Your task to perform on an android device: turn on data saver in the chrome app Image 0: 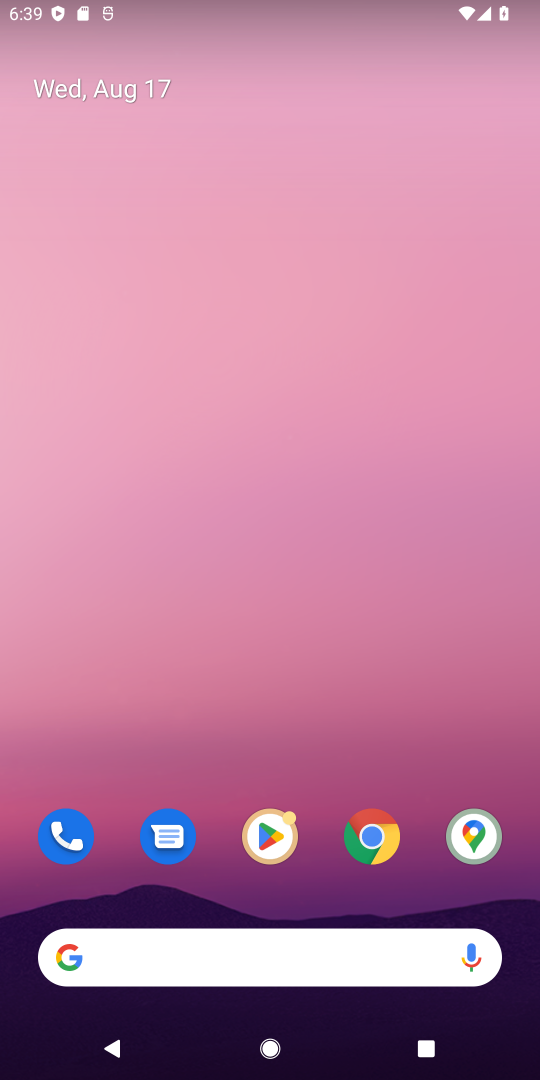
Step 0: click (359, 835)
Your task to perform on an android device: turn on data saver in the chrome app Image 1: 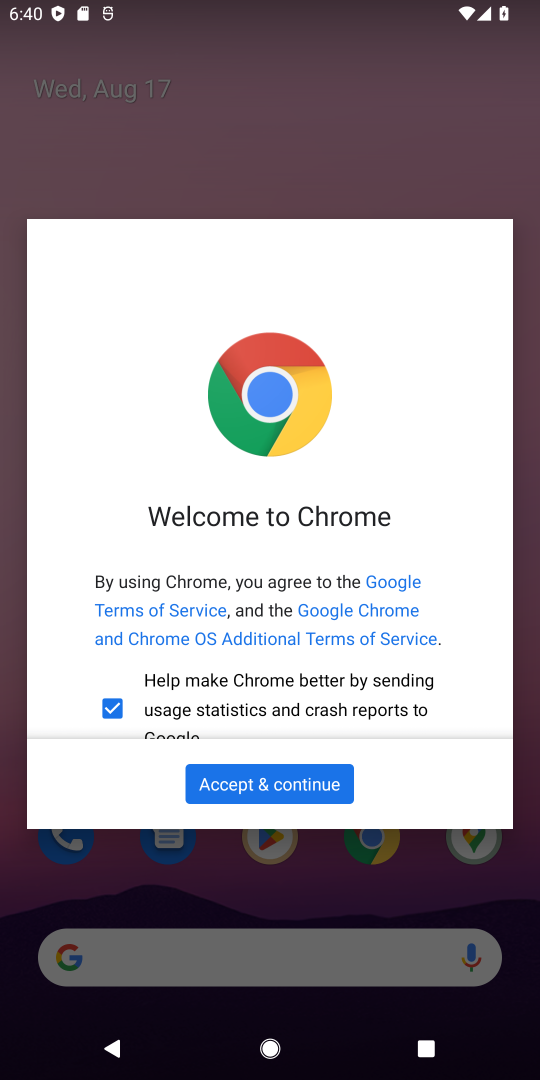
Step 1: click (250, 785)
Your task to perform on an android device: turn on data saver in the chrome app Image 2: 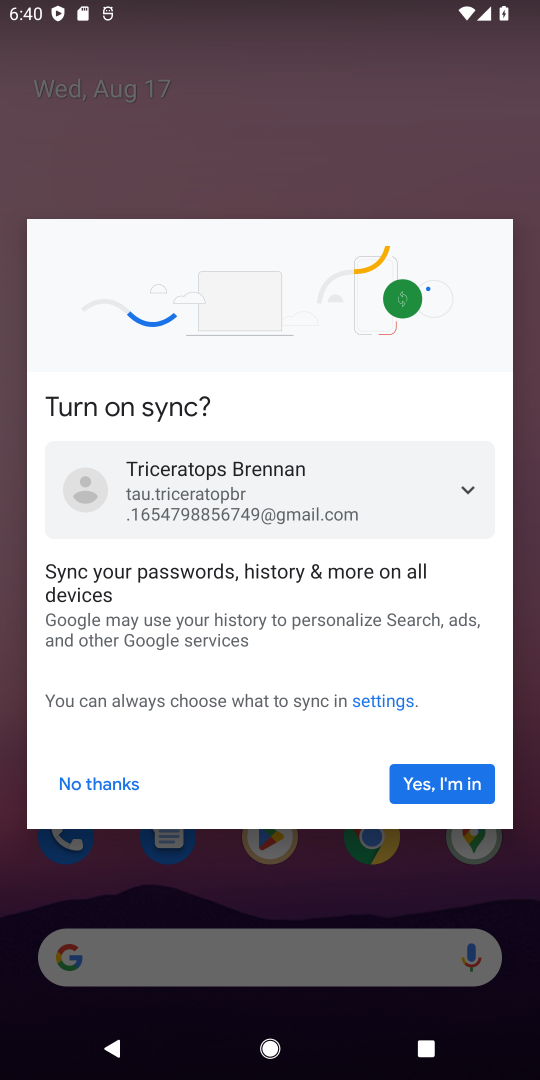
Step 2: click (441, 797)
Your task to perform on an android device: turn on data saver in the chrome app Image 3: 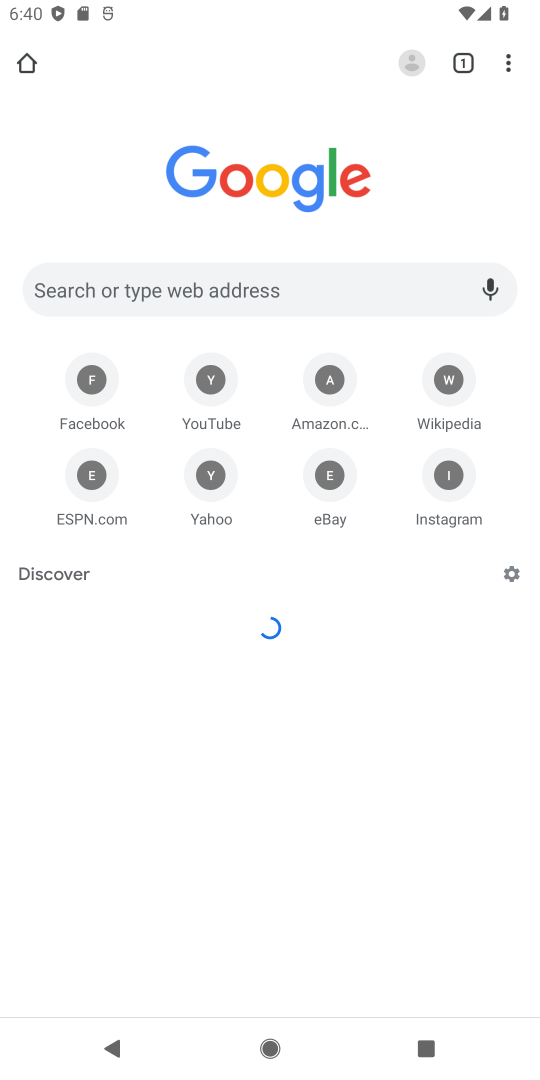
Step 3: click (447, 773)
Your task to perform on an android device: turn on data saver in the chrome app Image 4: 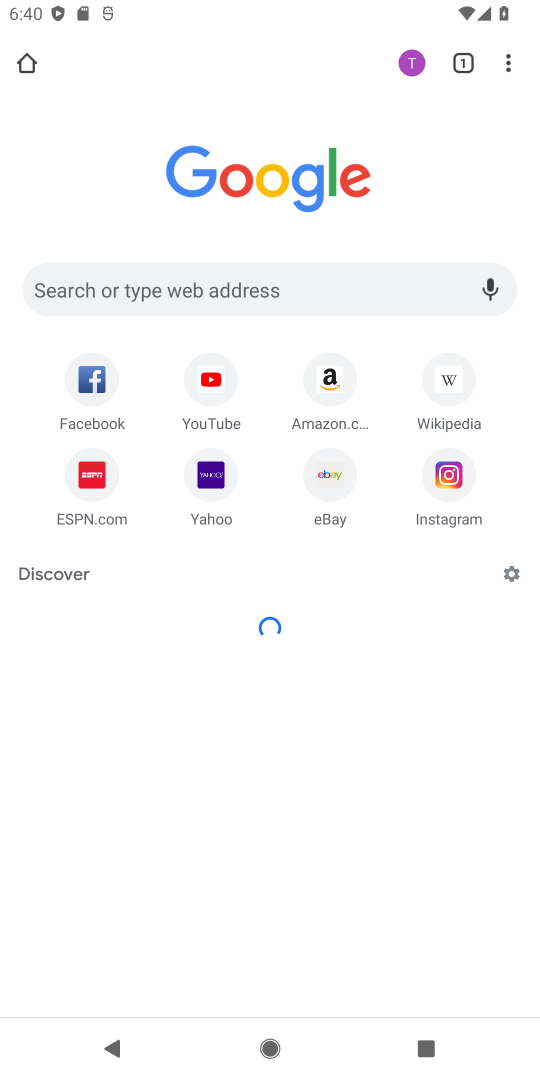
Step 4: click (523, 62)
Your task to perform on an android device: turn on data saver in the chrome app Image 5: 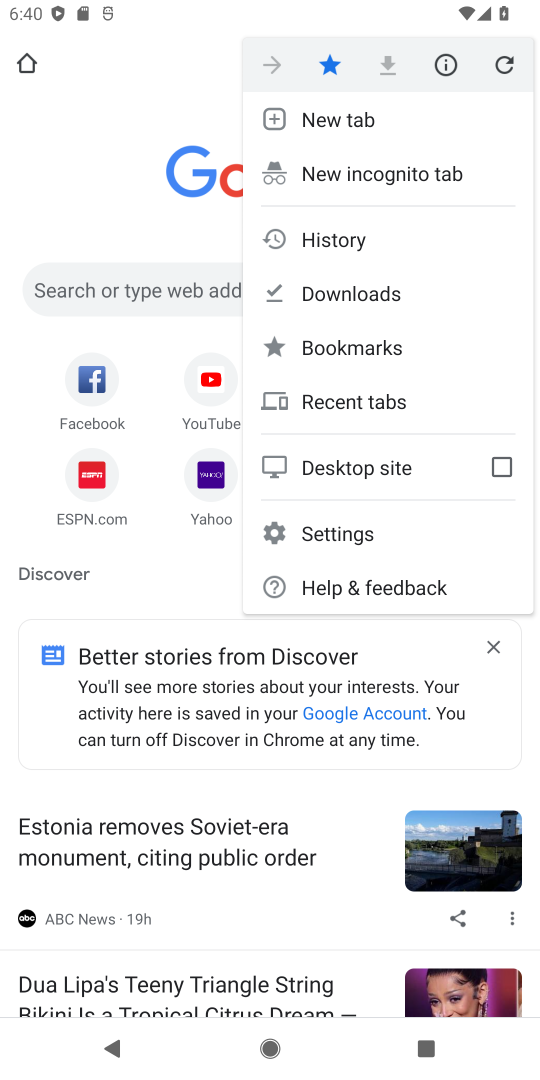
Step 5: click (350, 521)
Your task to perform on an android device: turn on data saver in the chrome app Image 6: 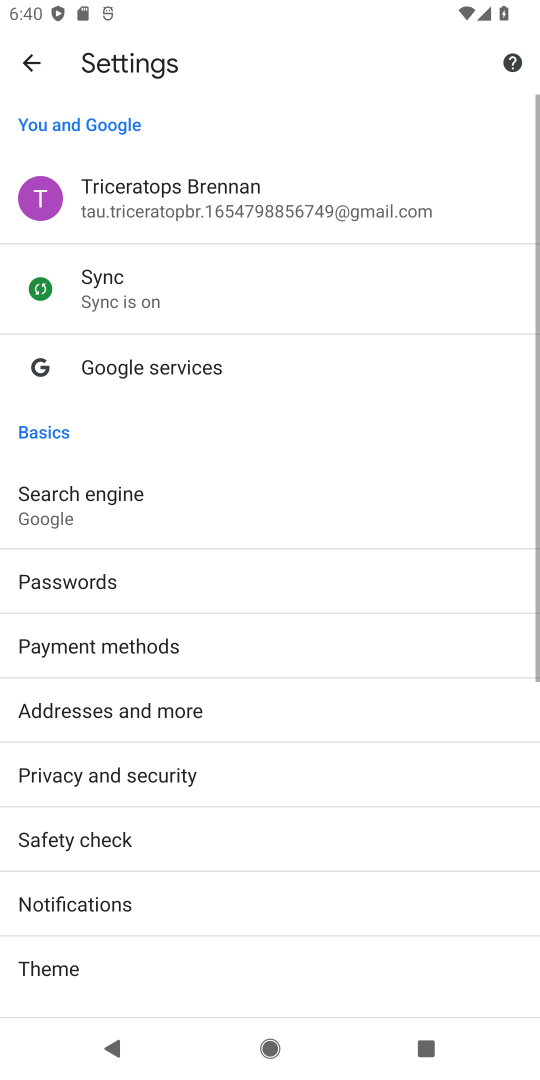
Step 6: drag from (281, 956) to (243, 175)
Your task to perform on an android device: turn on data saver in the chrome app Image 7: 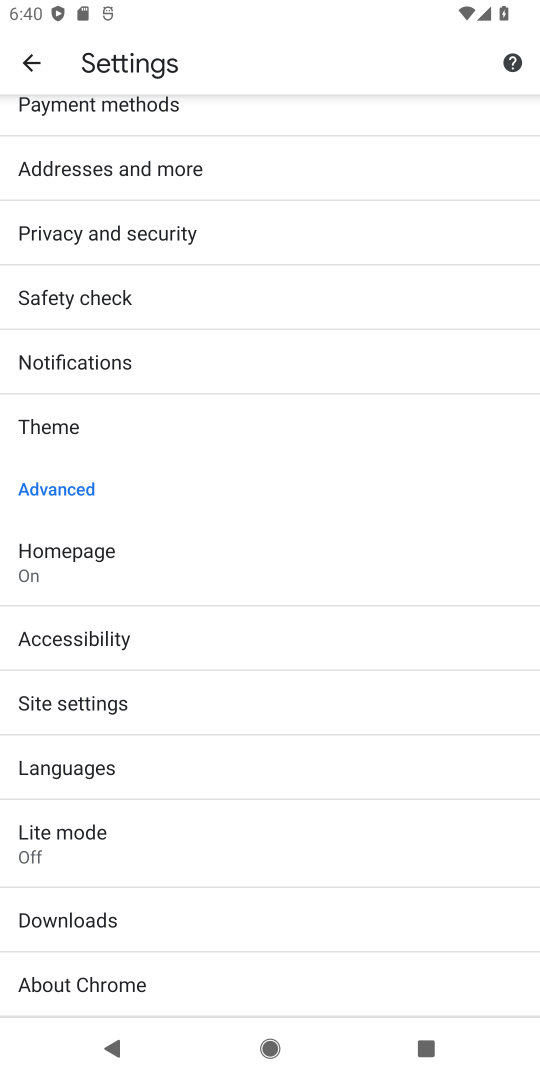
Step 7: click (97, 824)
Your task to perform on an android device: turn on data saver in the chrome app Image 8: 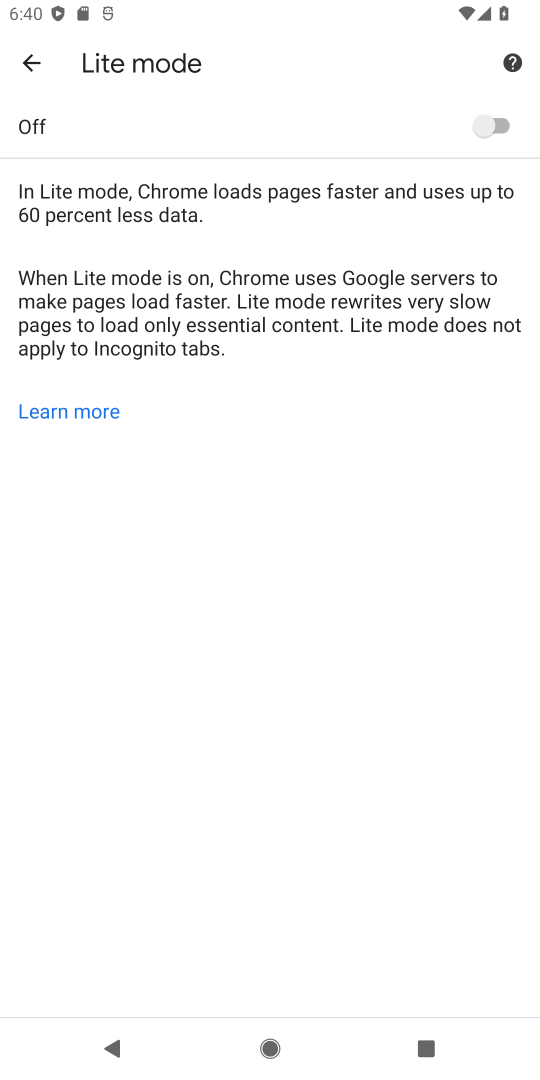
Step 8: click (508, 117)
Your task to perform on an android device: turn on data saver in the chrome app Image 9: 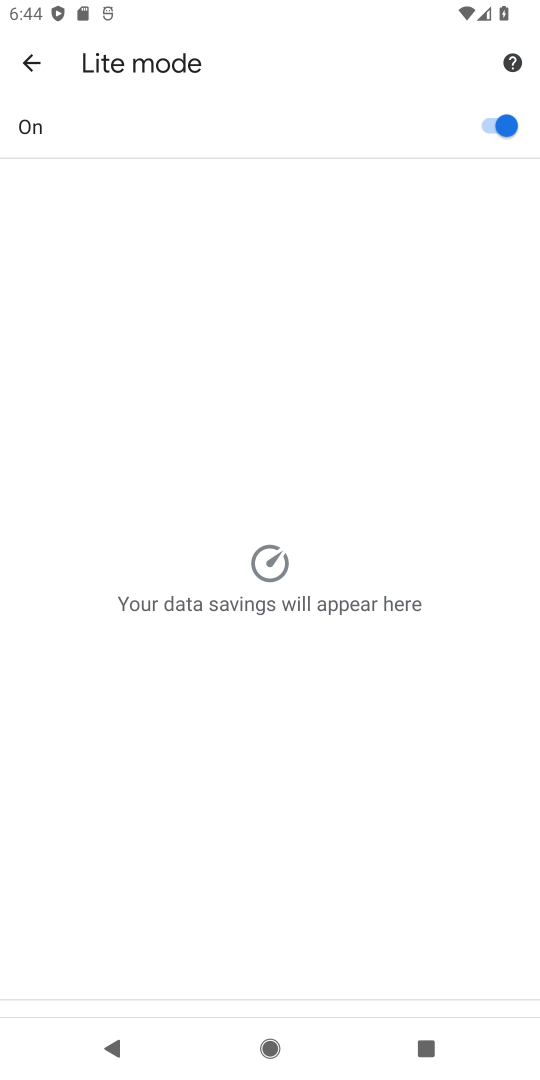
Step 9: task complete